Your task to perform on an android device: toggle priority inbox in the gmail app Image 0: 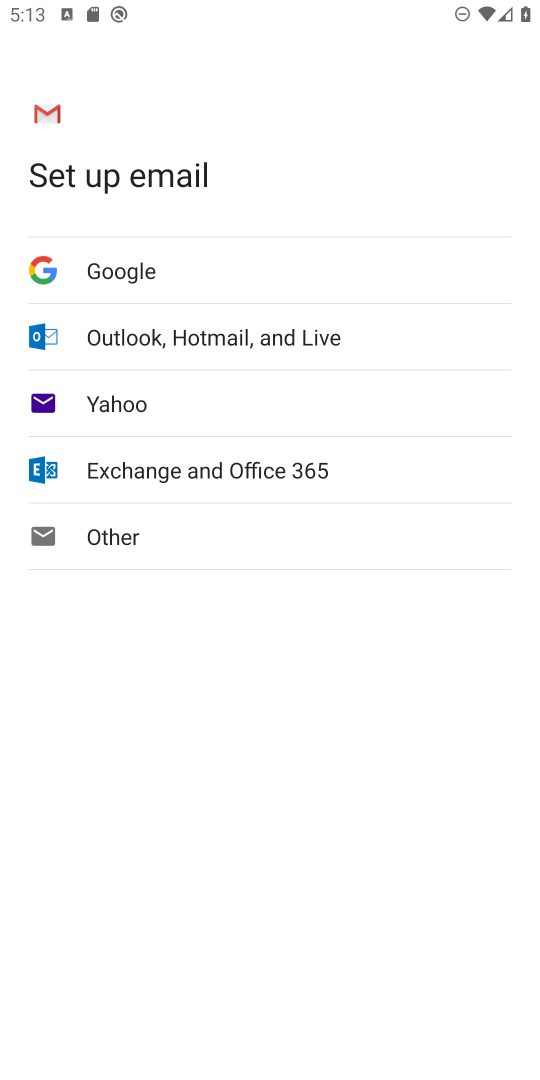
Step 0: press home button
Your task to perform on an android device: toggle priority inbox in the gmail app Image 1: 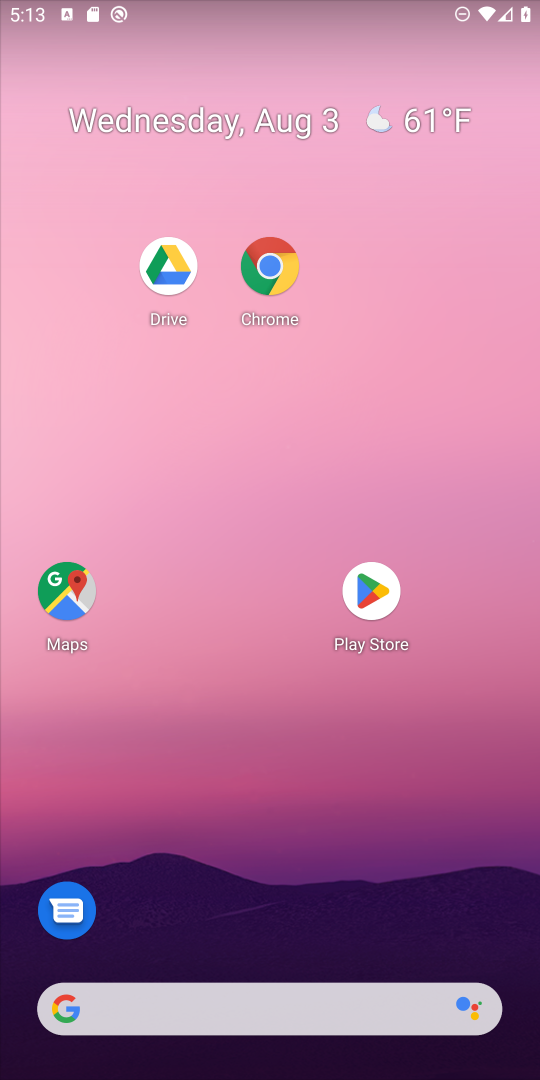
Step 1: drag from (366, 840) to (450, 115)
Your task to perform on an android device: toggle priority inbox in the gmail app Image 2: 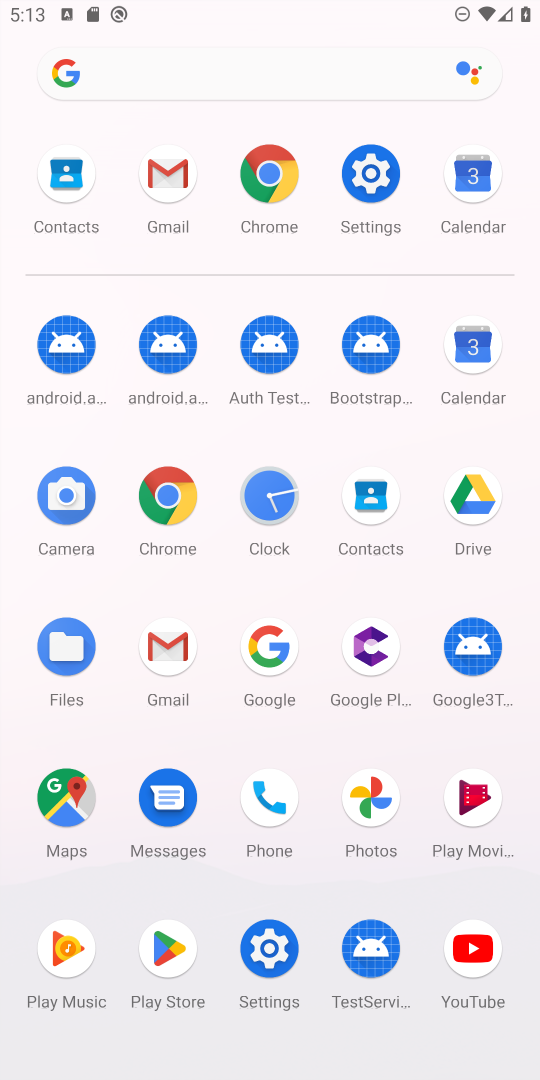
Step 2: click (175, 651)
Your task to perform on an android device: toggle priority inbox in the gmail app Image 3: 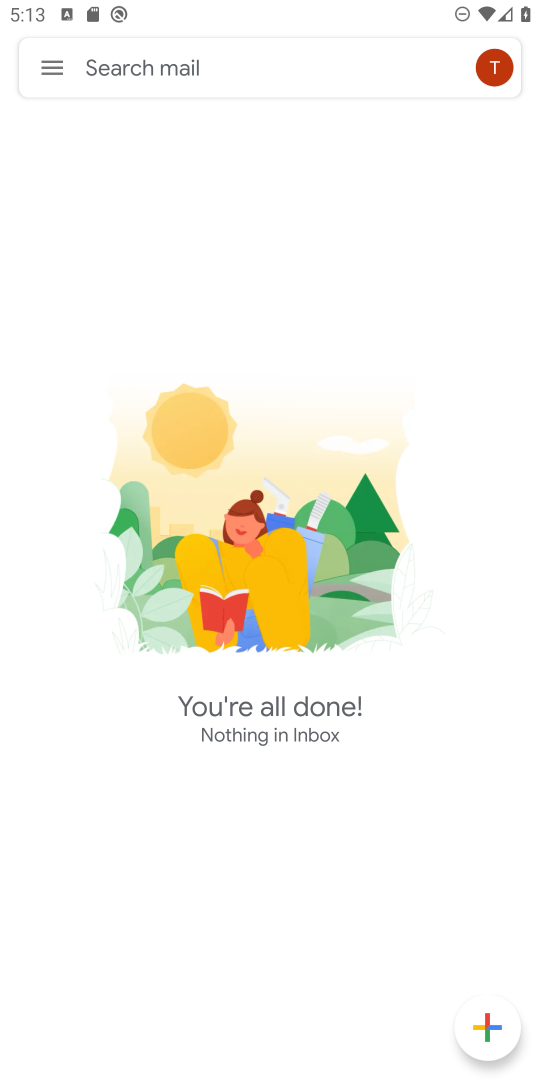
Step 3: click (48, 56)
Your task to perform on an android device: toggle priority inbox in the gmail app Image 4: 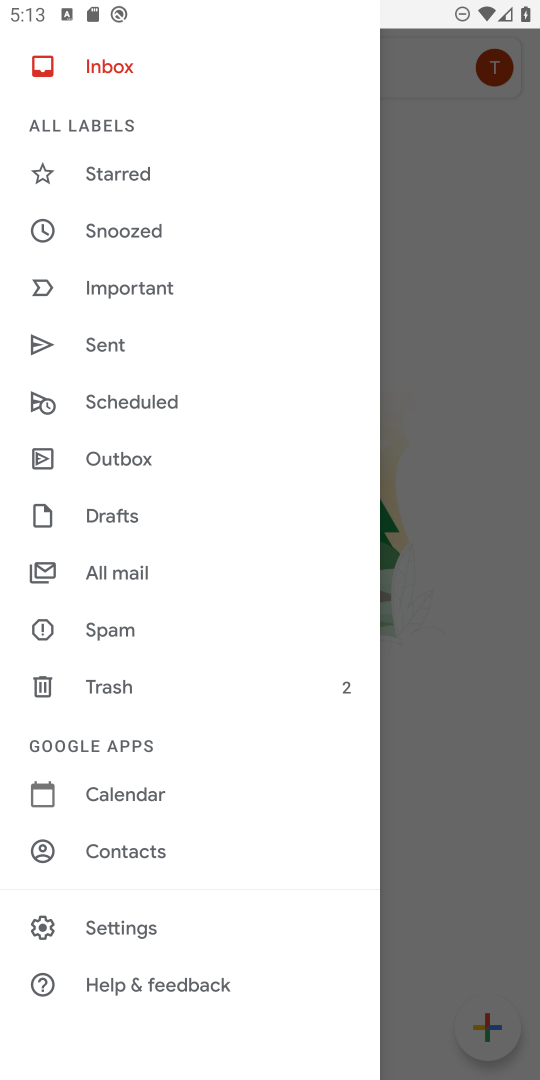
Step 4: click (127, 931)
Your task to perform on an android device: toggle priority inbox in the gmail app Image 5: 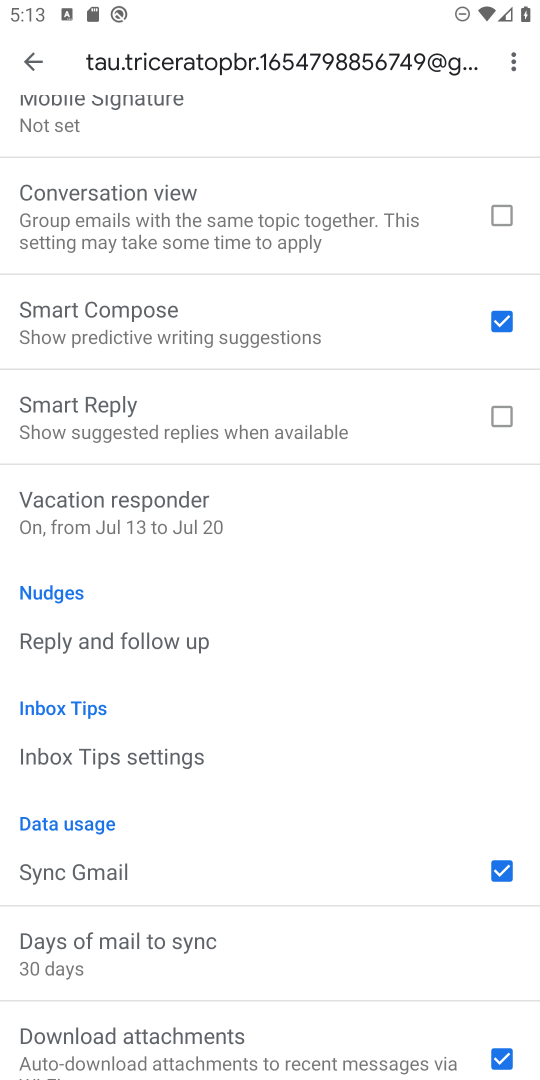
Step 5: drag from (230, 438) to (271, 1077)
Your task to perform on an android device: toggle priority inbox in the gmail app Image 6: 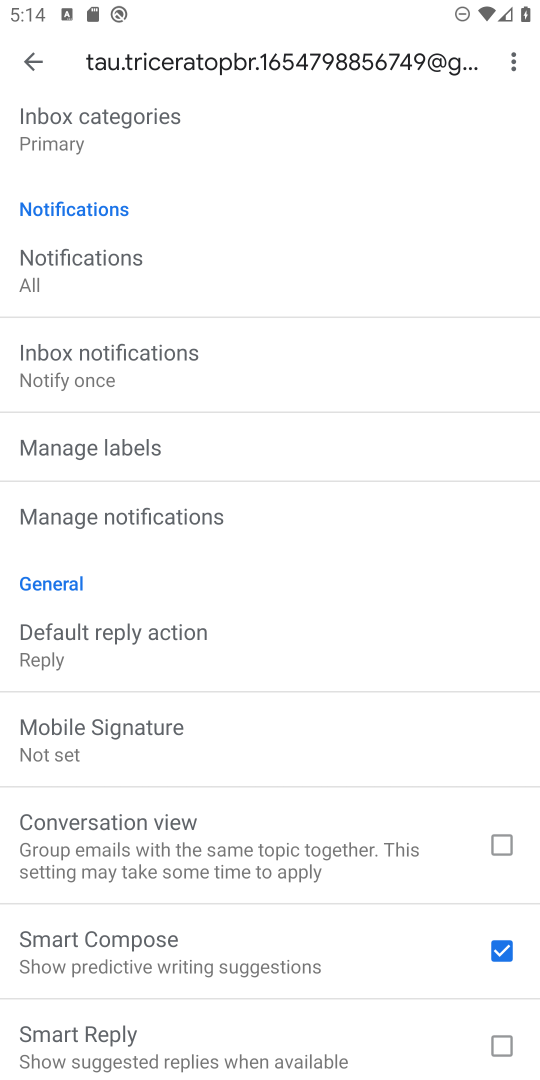
Step 6: drag from (338, 848) to (356, 1062)
Your task to perform on an android device: toggle priority inbox in the gmail app Image 7: 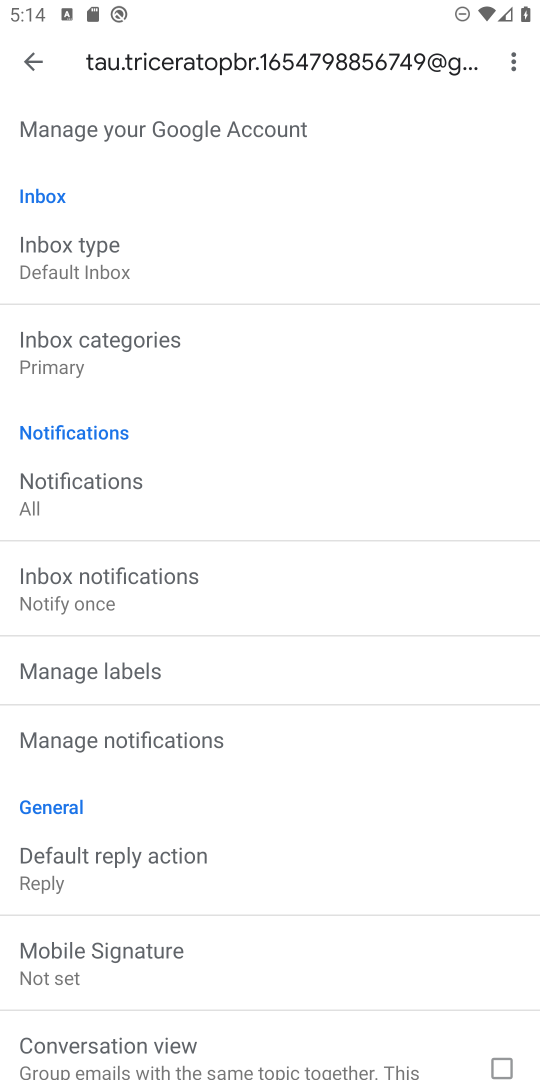
Step 7: click (162, 248)
Your task to perform on an android device: toggle priority inbox in the gmail app Image 8: 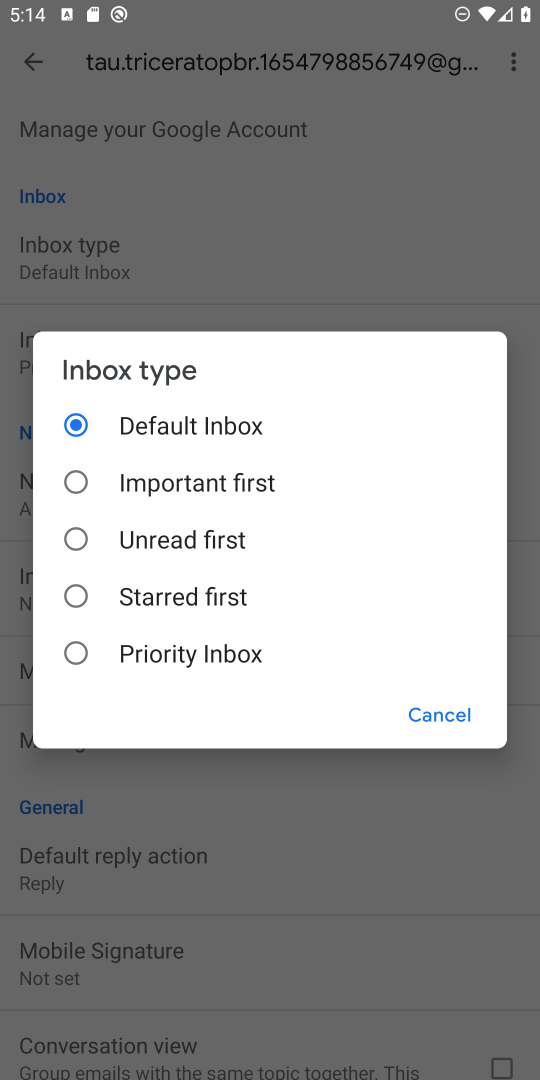
Step 8: click (78, 650)
Your task to perform on an android device: toggle priority inbox in the gmail app Image 9: 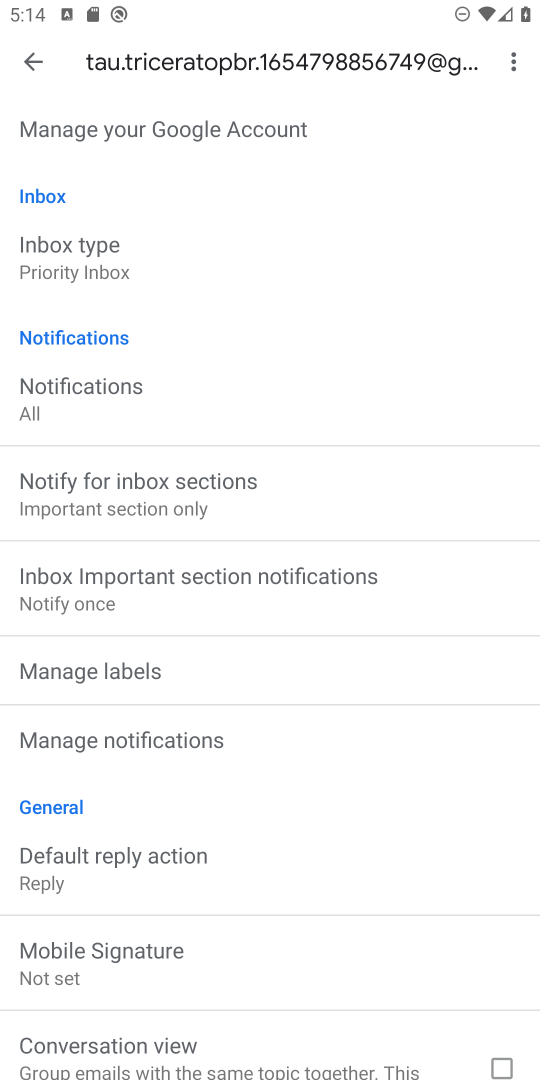
Step 9: task complete